Your task to perform on an android device: manage bookmarks in the chrome app Image 0: 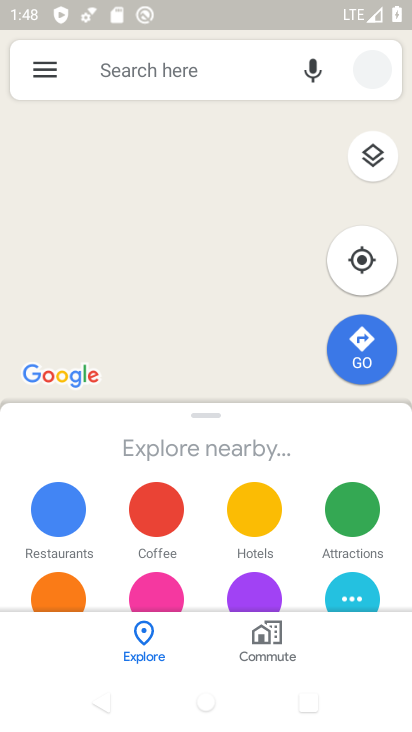
Step 0: press home button
Your task to perform on an android device: manage bookmarks in the chrome app Image 1: 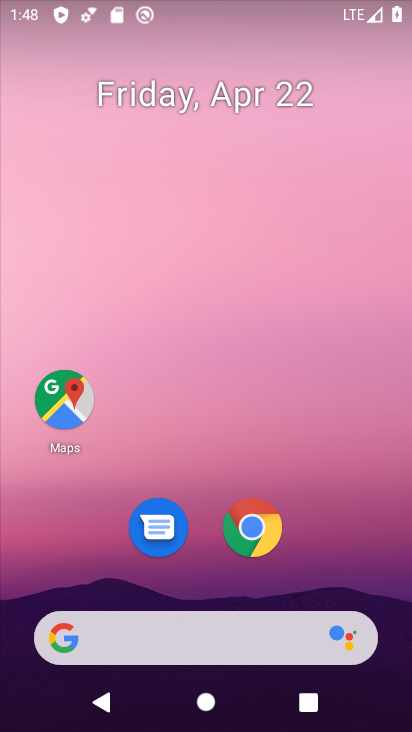
Step 1: click (246, 541)
Your task to perform on an android device: manage bookmarks in the chrome app Image 2: 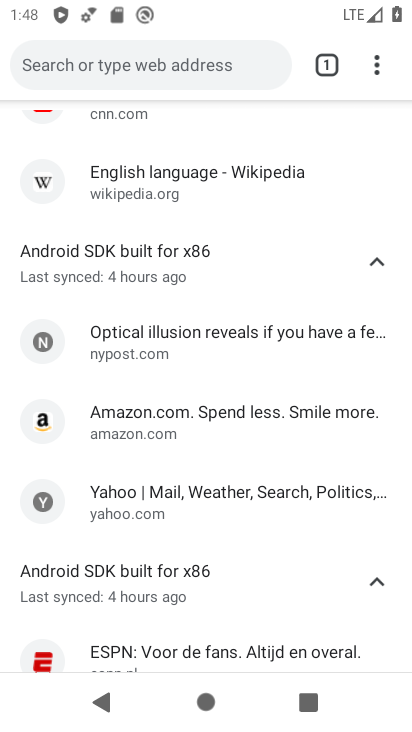
Step 2: drag from (375, 70) to (151, 247)
Your task to perform on an android device: manage bookmarks in the chrome app Image 3: 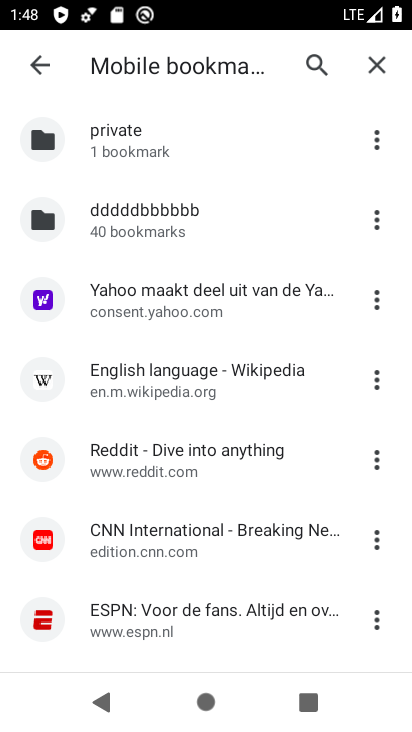
Step 3: click (379, 374)
Your task to perform on an android device: manage bookmarks in the chrome app Image 4: 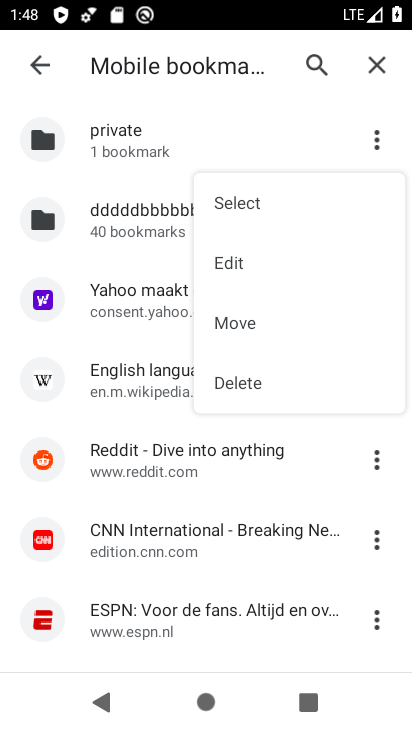
Step 4: click (243, 322)
Your task to perform on an android device: manage bookmarks in the chrome app Image 5: 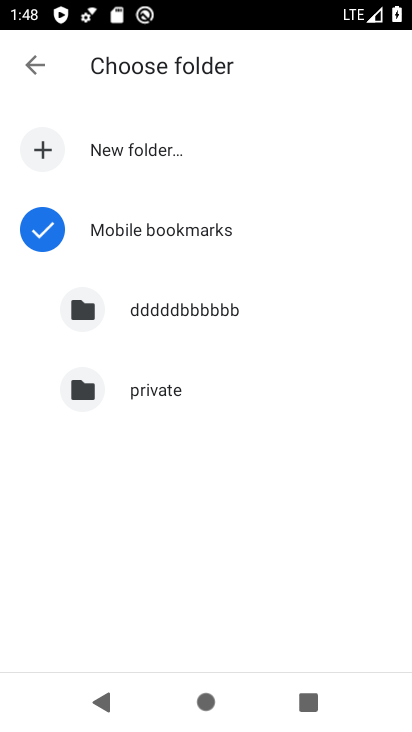
Step 5: click (171, 389)
Your task to perform on an android device: manage bookmarks in the chrome app Image 6: 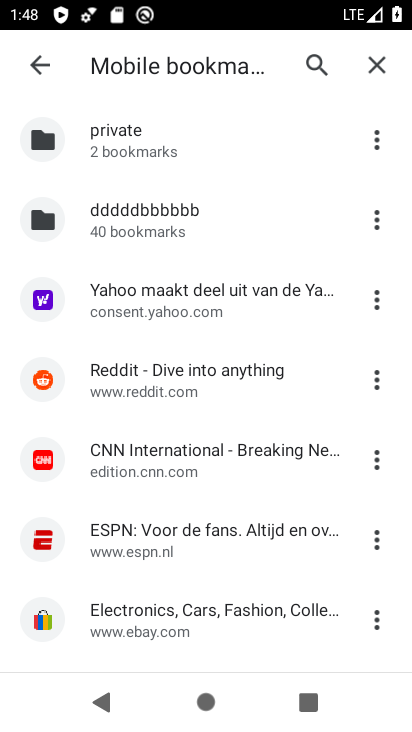
Step 6: task complete